Your task to perform on an android device: move a message to another label in the gmail app Image 0: 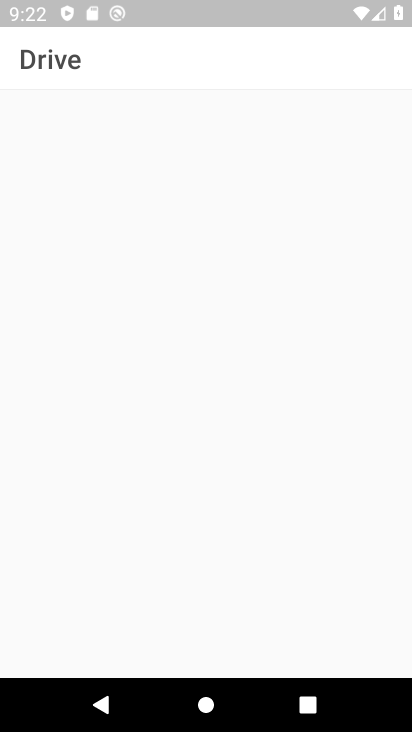
Step 0: press home button
Your task to perform on an android device: move a message to another label in the gmail app Image 1: 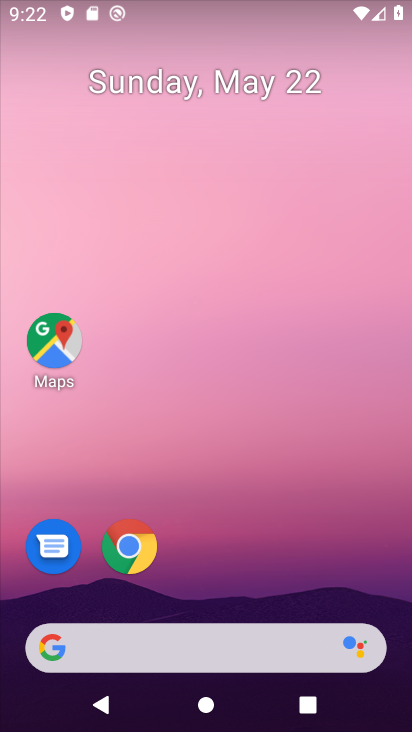
Step 1: drag from (239, 597) to (156, 186)
Your task to perform on an android device: move a message to another label in the gmail app Image 2: 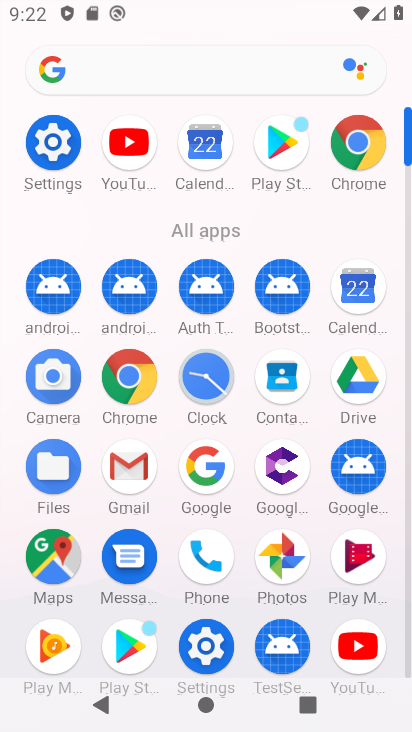
Step 2: click (143, 476)
Your task to perform on an android device: move a message to another label in the gmail app Image 3: 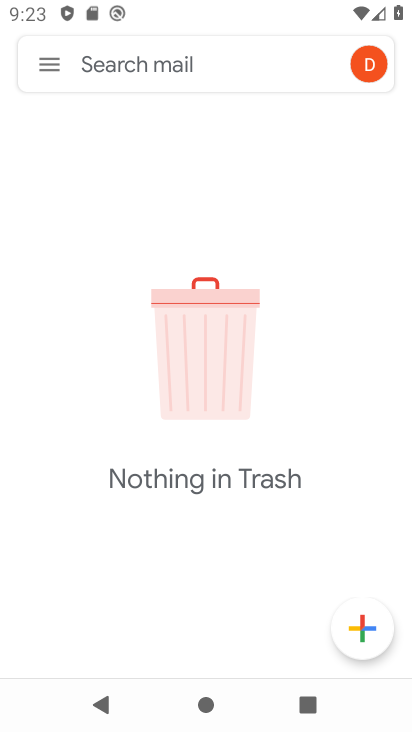
Step 3: click (56, 69)
Your task to perform on an android device: move a message to another label in the gmail app Image 4: 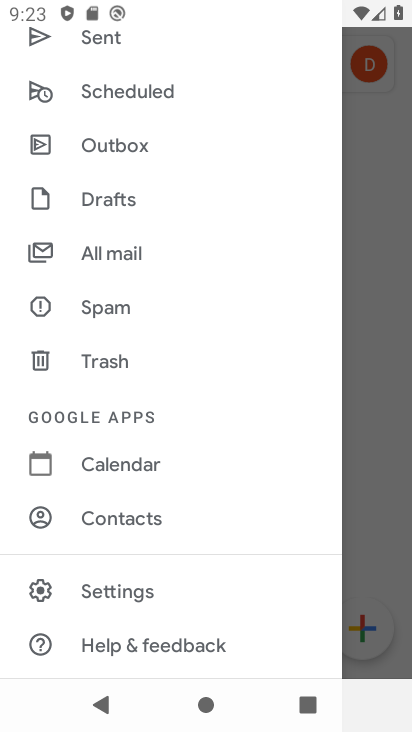
Step 4: click (231, 242)
Your task to perform on an android device: move a message to another label in the gmail app Image 5: 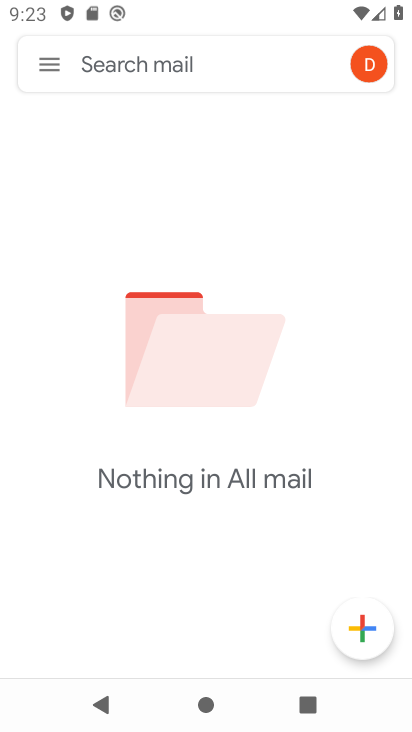
Step 5: task complete